Your task to perform on an android device: Open Wikipedia Image 0: 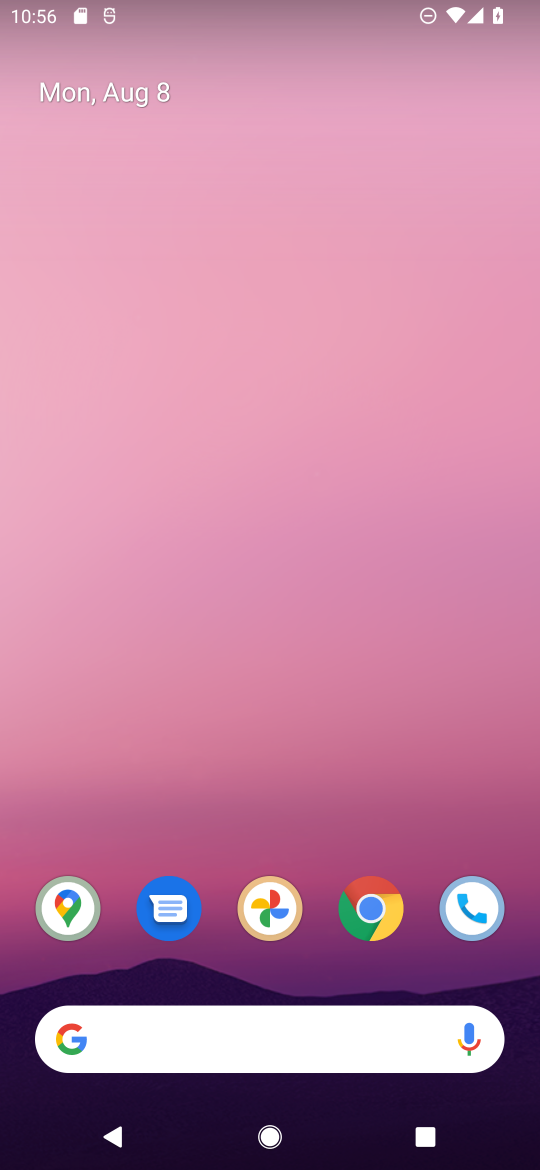
Step 0: click (360, 898)
Your task to perform on an android device: Open Wikipedia Image 1: 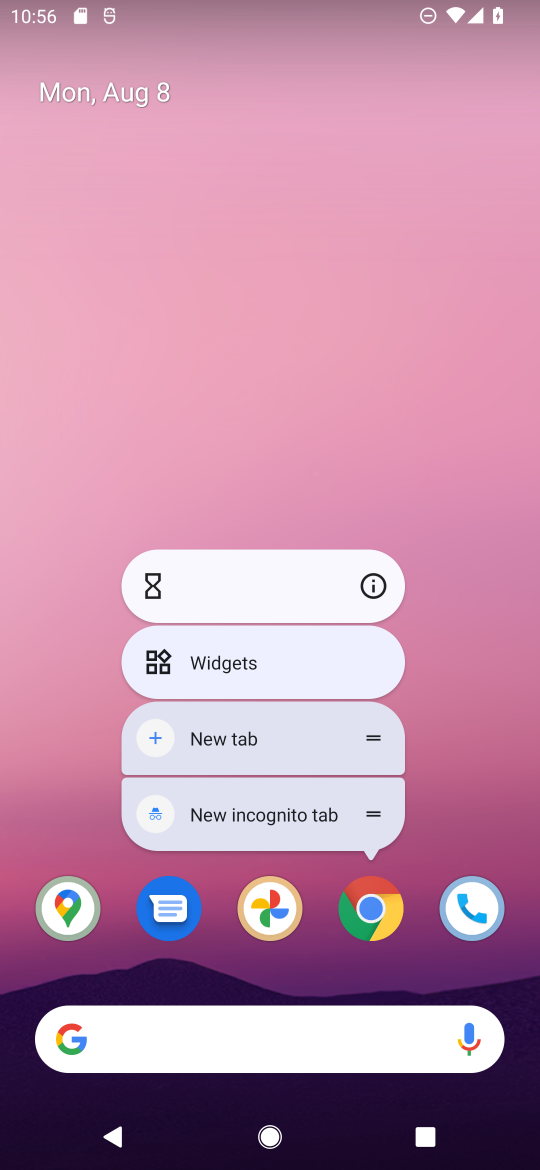
Step 1: drag from (432, 834) to (459, 3)
Your task to perform on an android device: Open Wikipedia Image 2: 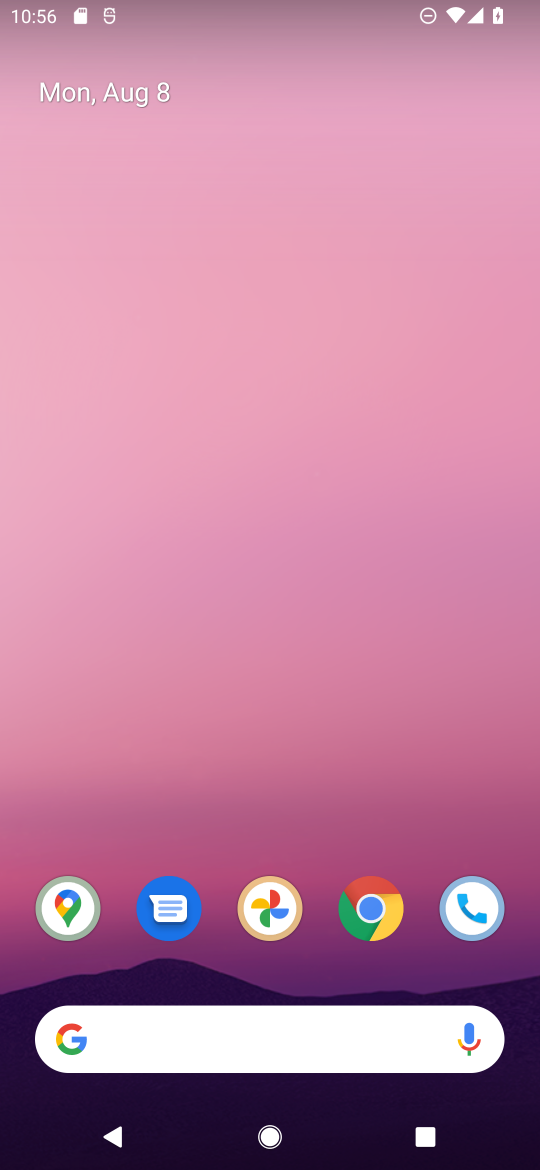
Step 2: drag from (340, 771) to (387, 254)
Your task to perform on an android device: Open Wikipedia Image 3: 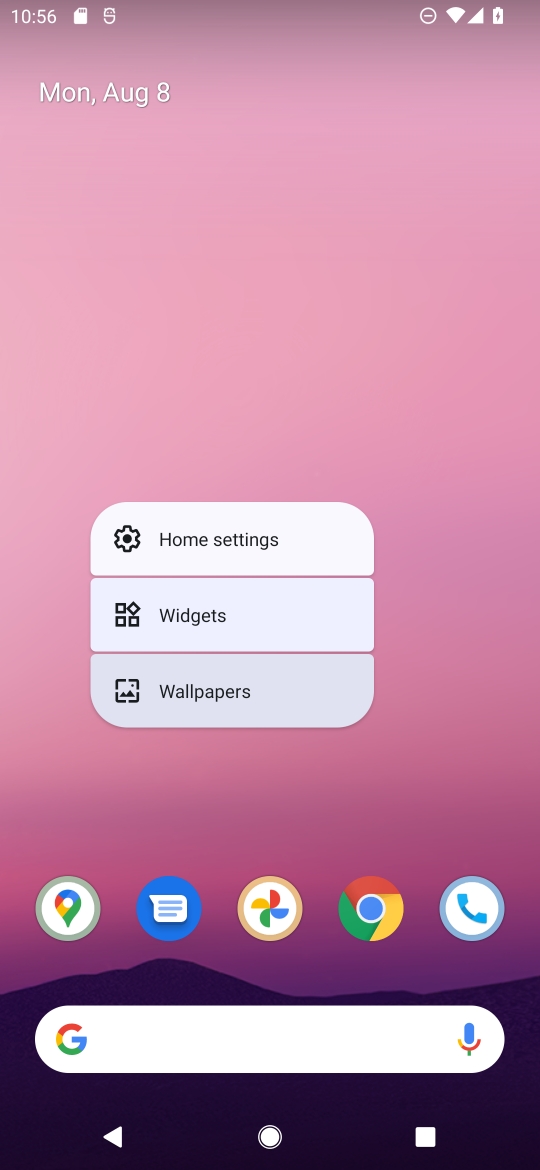
Step 3: click (392, 821)
Your task to perform on an android device: Open Wikipedia Image 4: 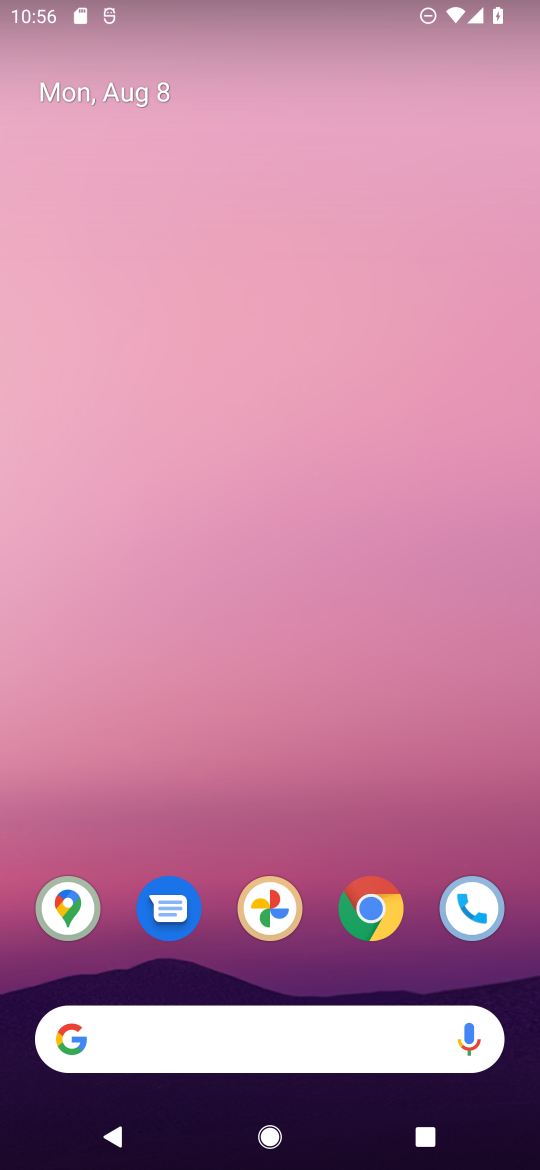
Step 4: drag from (474, 226) to (465, 10)
Your task to perform on an android device: Open Wikipedia Image 5: 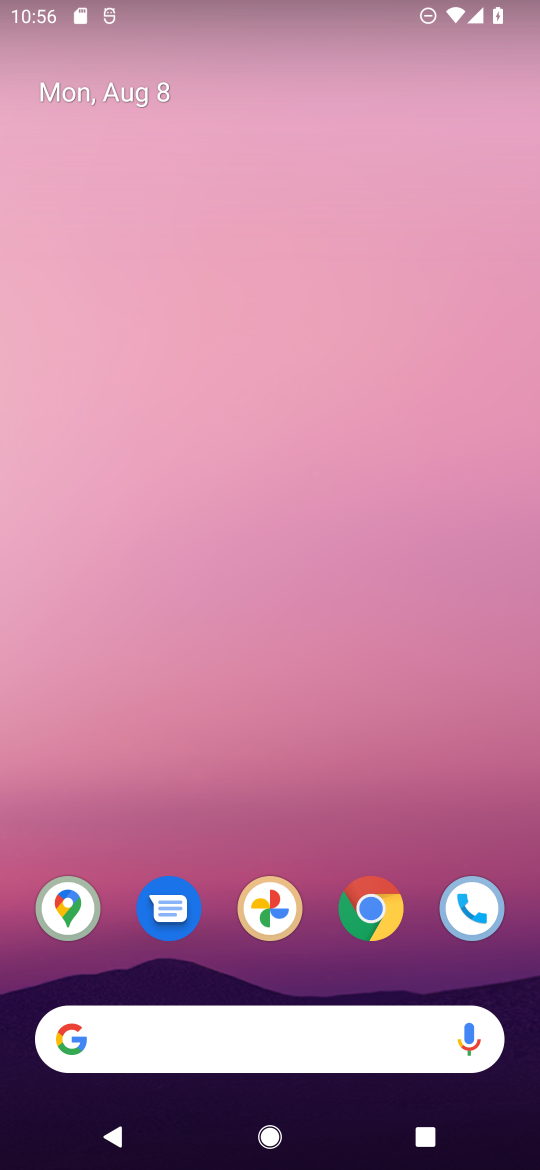
Step 5: drag from (342, 820) to (355, 16)
Your task to perform on an android device: Open Wikipedia Image 6: 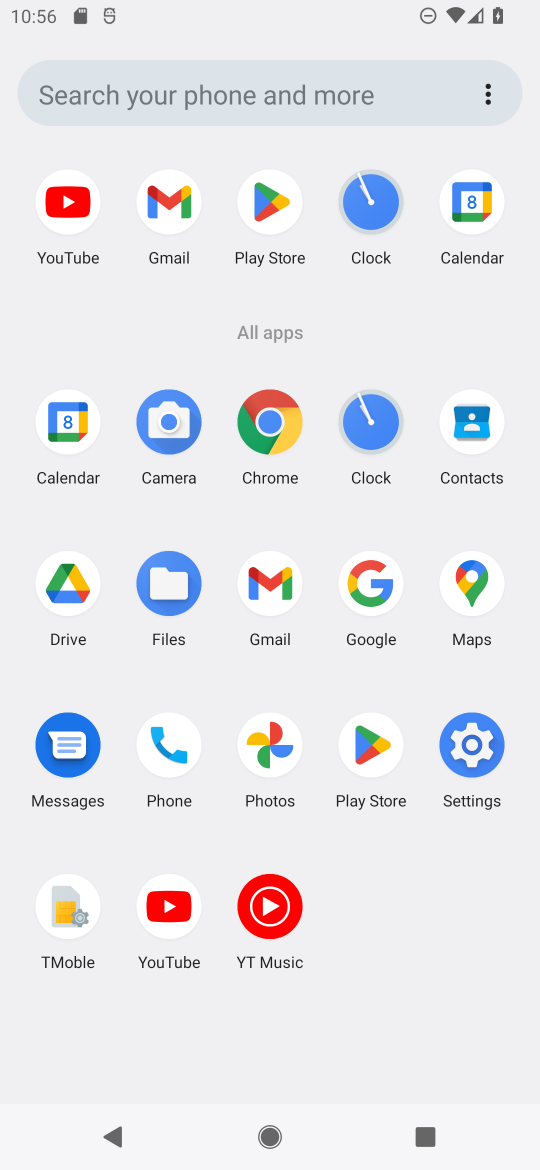
Step 6: click (267, 413)
Your task to perform on an android device: Open Wikipedia Image 7: 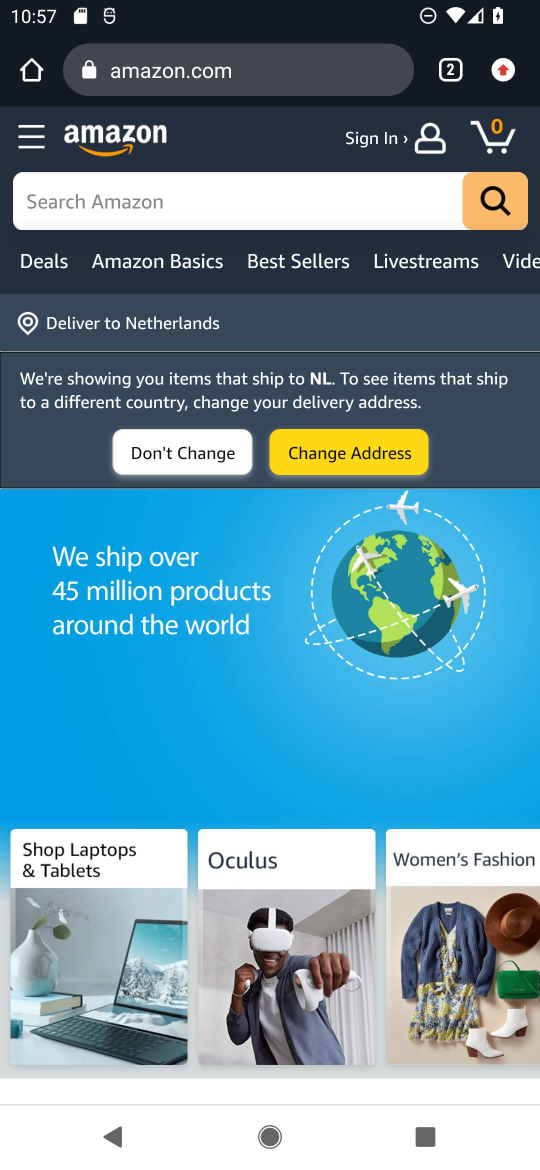
Step 7: click (449, 69)
Your task to perform on an android device: Open Wikipedia Image 8: 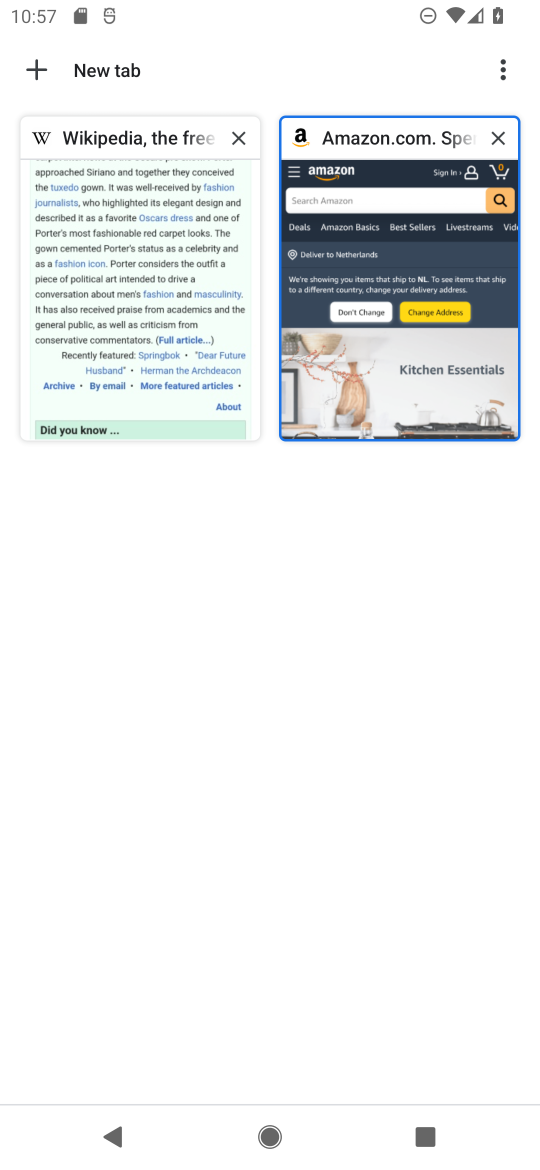
Step 8: click (167, 244)
Your task to perform on an android device: Open Wikipedia Image 9: 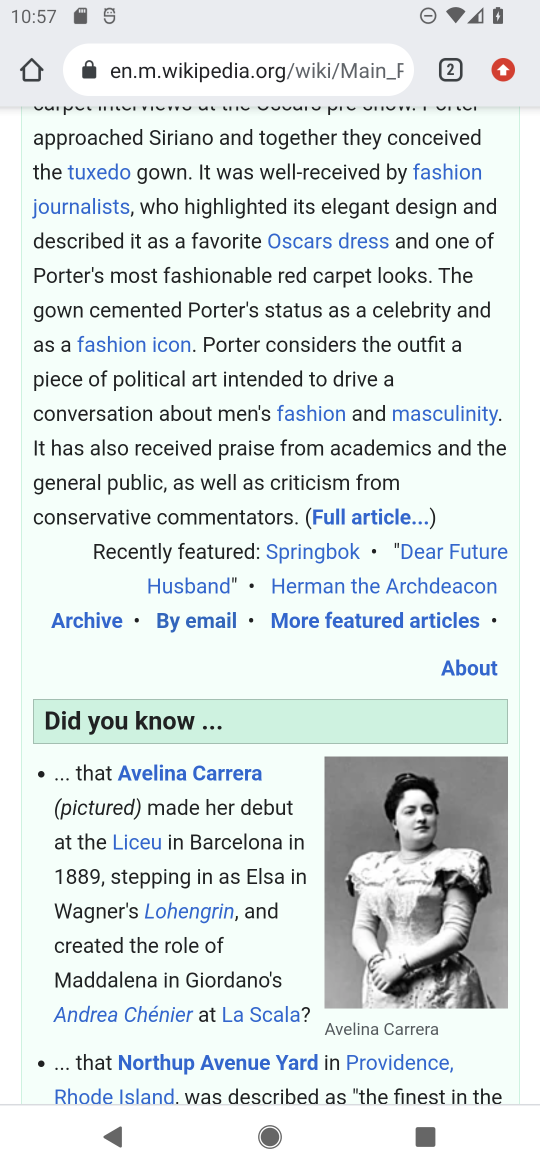
Step 9: task complete